Your task to perform on an android device: Search for vegetarian restaurants on Maps Image 0: 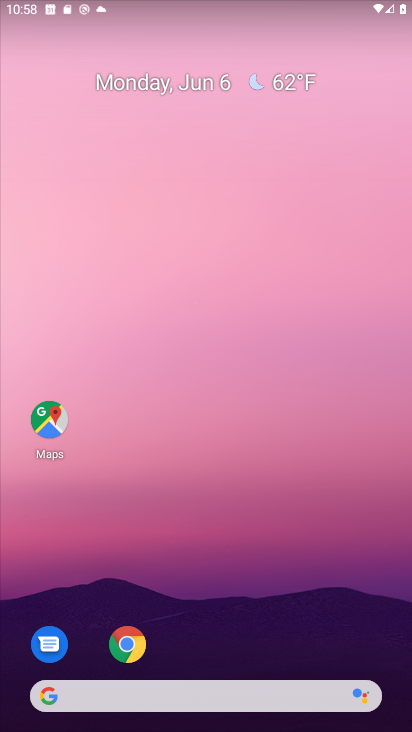
Step 0: click (42, 431)
Your task to perform on an android device: Search for vegetarian restaurants on Maps Image 1: 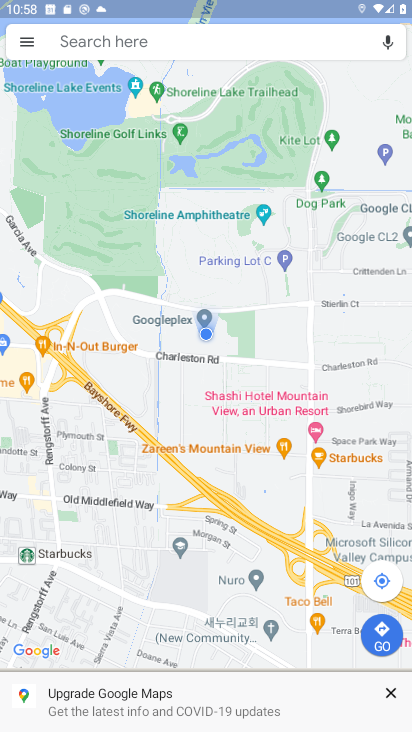
Step 1: click (144, 47)
Your task to perform on an android device: Search for vegetarian restaurants on Maps Image 2: 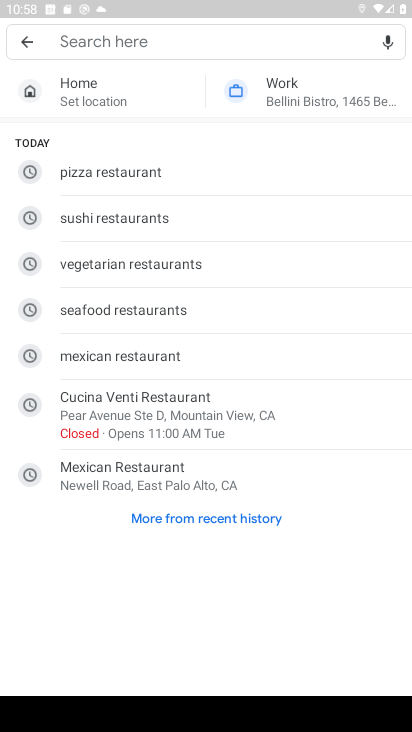
Step 2: click (104, 269)
Your task to perform on an android device: Search for vegetarian restaurants on Maps Image 3: 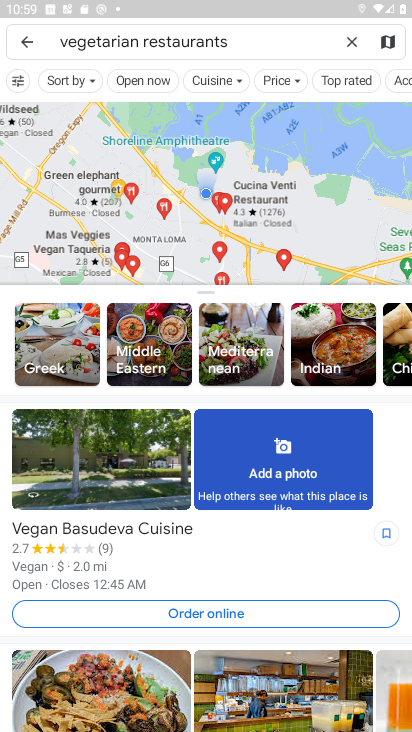
Step 3: task complete